Your task to perform on an android device: Open Google Chrome and open the bookmarks view Image 0: 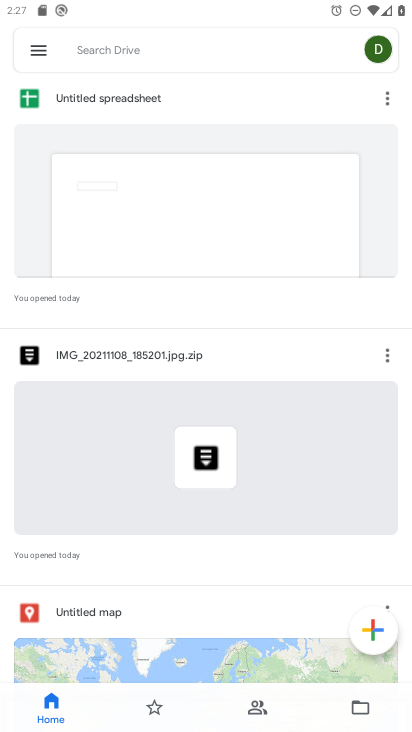
Step 0: press home button
Your task to perform on an android device: Open Google Chrome and open the bookmarks view Image 1: 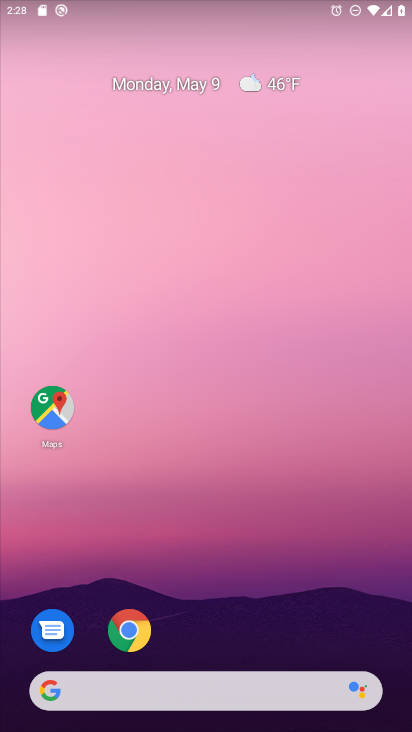
Step 1: drag from (288, 711) to (356, 365)
Your task to perform on an android device: Open Google Chrome and open the bookmarks view Image 2: 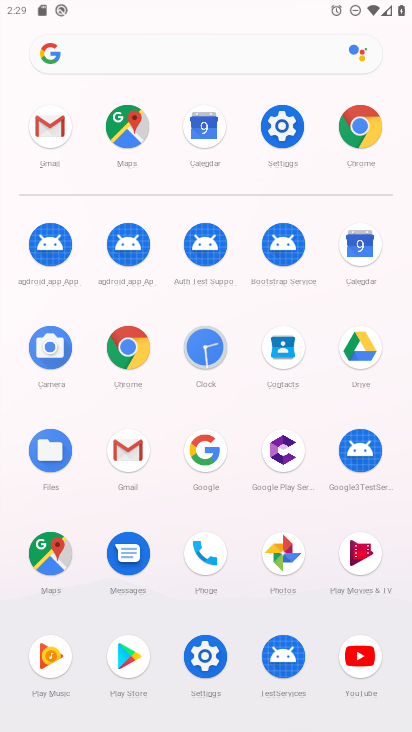
Step 2: click (125, 335)
Your task to perform on an android device: Open Google Chrome and open the bookmarks view Image 3: 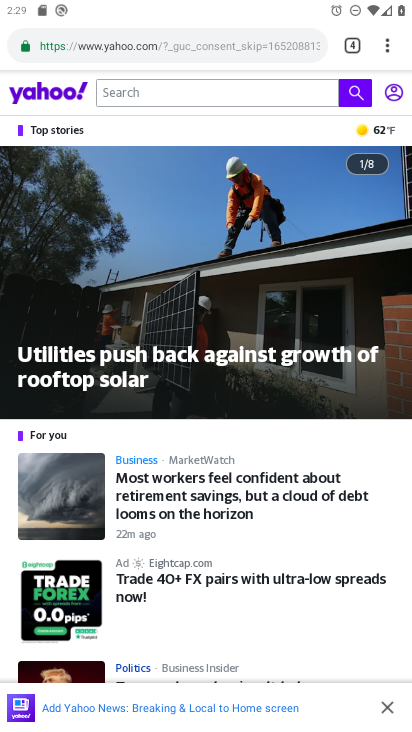
Step 3: click (381, 50)
Your task to perform on an android device: Open Google Chrome and open the bookmarks view Image 4: 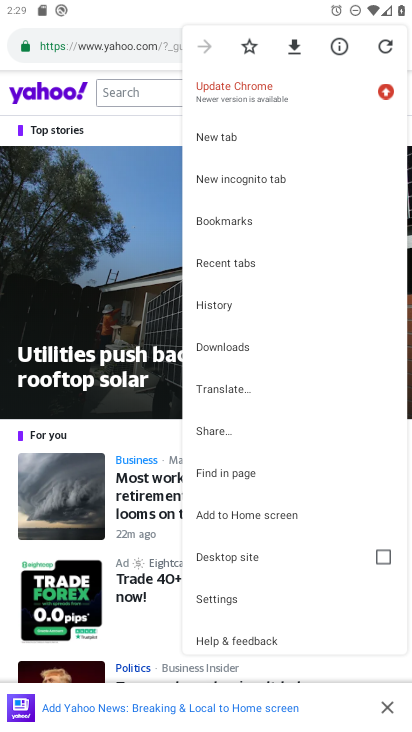
Step 4: click (236, 219)
Your task to perform on an android device: Open Google Chrome and open the bookmarks view Image 5: 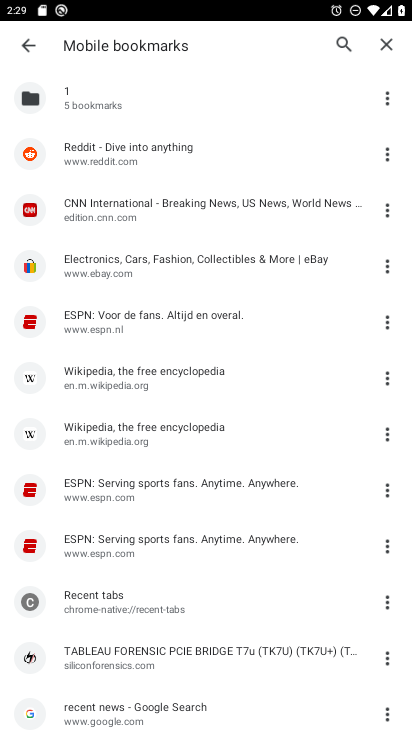
Step 5: task complete